Your task to perform on an android device: empty trash in the gmail app Image 0: 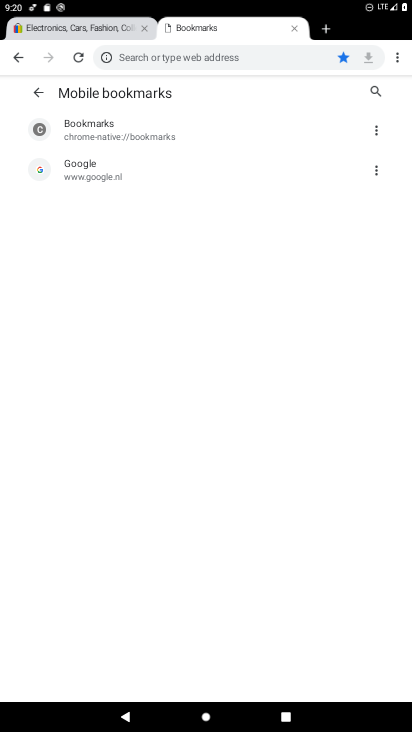
Step 0: press home button
Your task to perform on an android device: empty trash in the gmail app Image 1: 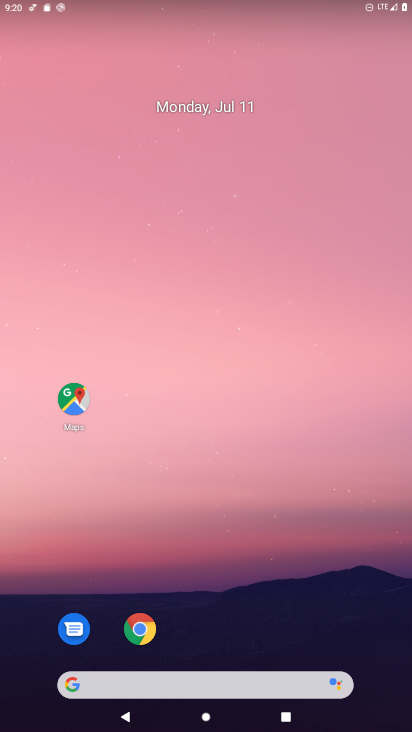
Step 1: drag from (200, 624) to (244, 97)
Your task to perform on an android device: empty trash in the gmail app Image 2: 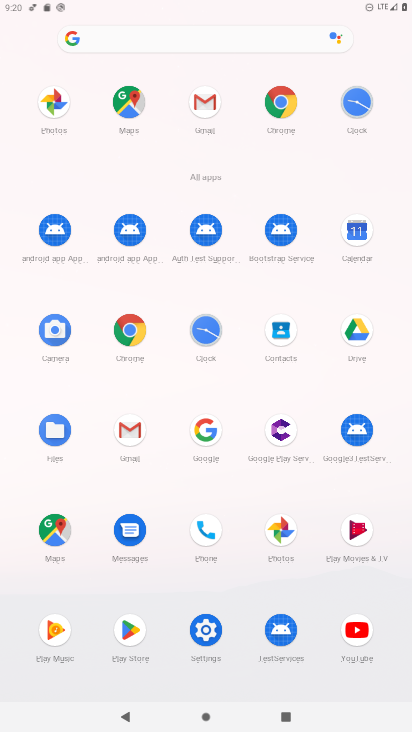
Step 2: click (190, 111)
Your task to perform on an android device: empty trash in the gmail app Image 3: 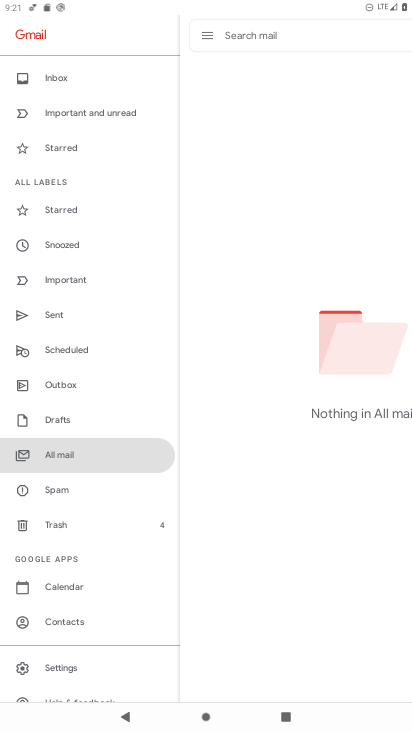
Step 3: click (82, 529)
Your task to perform on an android device: empty trash in the gmail app Image 4: 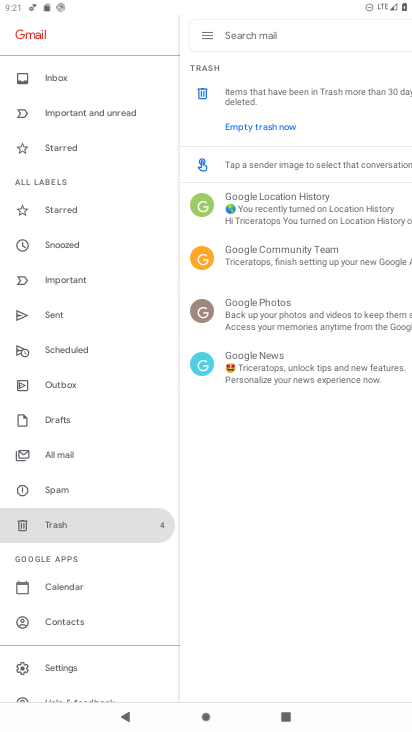
Step 4: click (285, 125)
Your task to perform on an android device: empty trash in the gmail app Image 5: 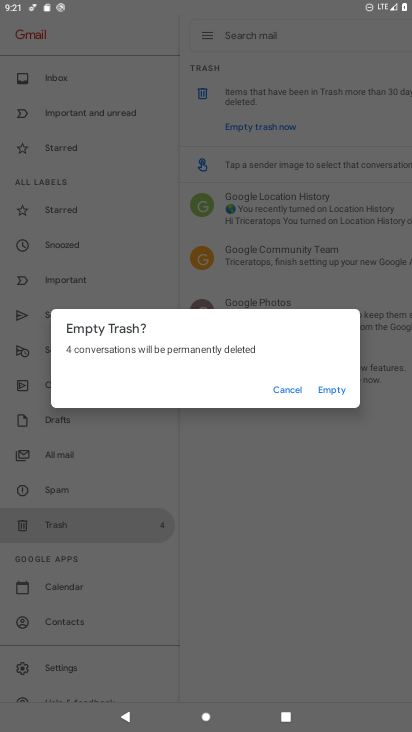
Step 5: click (345, 396)
Your task to perform on an android device: empty trash in the gmail app Image 6: 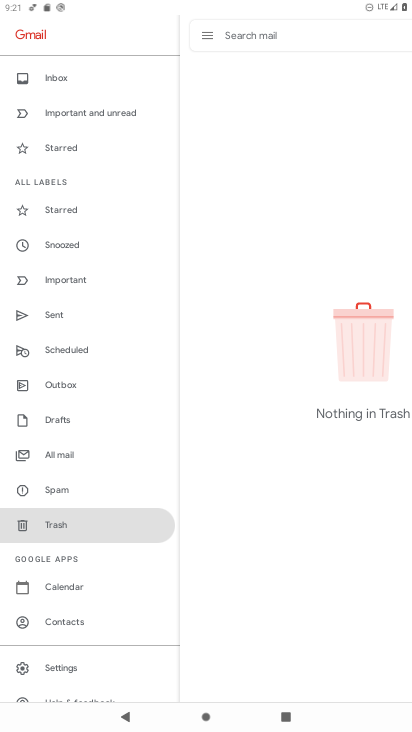
Step 6: task complete